Your task to perform on an android device: open a new tab in the chrome app Image 0: 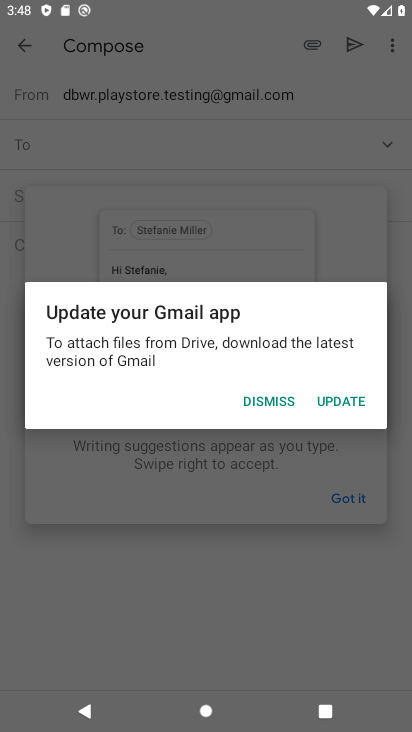
Step 0: press home button
Your task to perform on an android device: open a new tab in the chrome app Image 1: 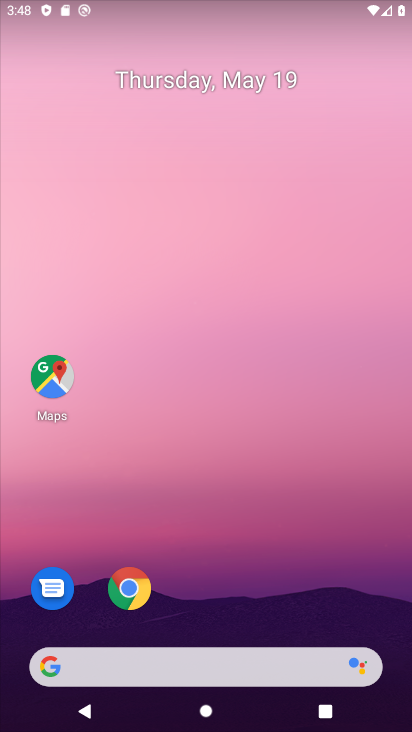
Step 1: click (141, 582)
Your task to perform on an android device: open a new tab in the chrome app Image 2: 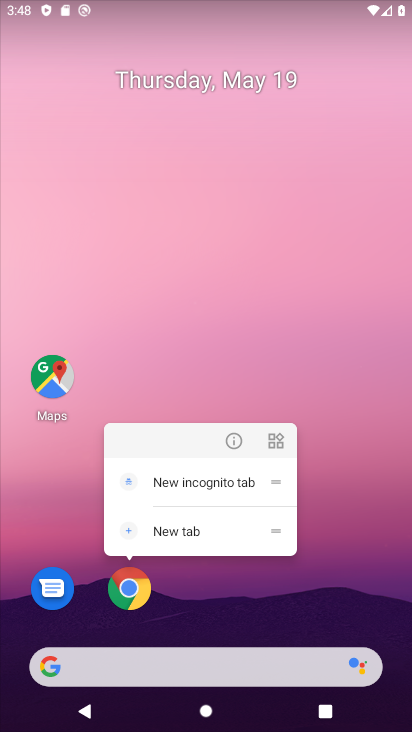
Step 2: click (132, 589)
Your task to perform on an android device: open a new tab in the chrome app Image 3: 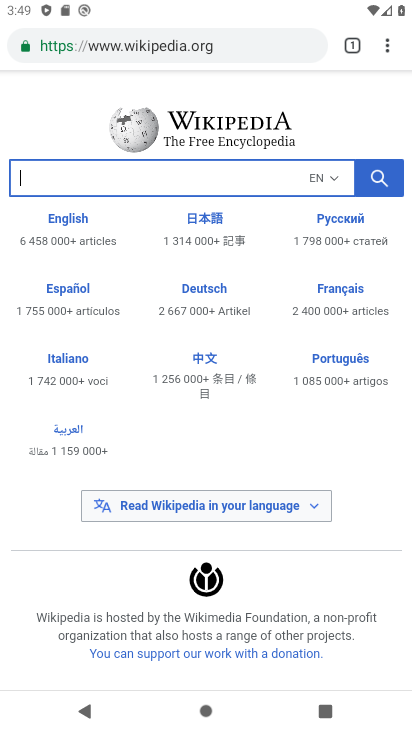
Step 3: click (378, 44)
Your task to perform on an android device: open a new tab in the chrome app Image 4: 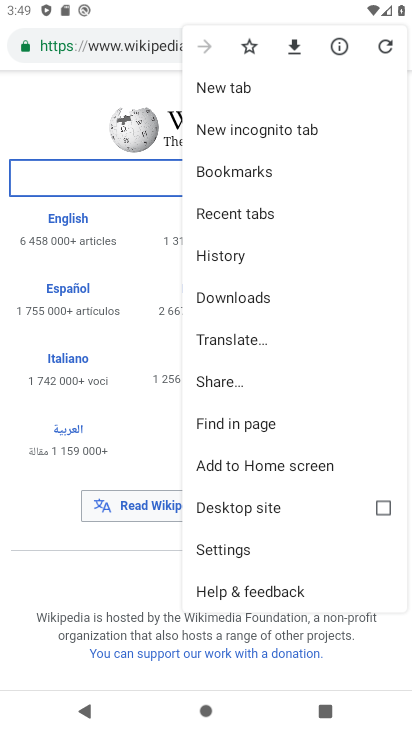
Step 4: click (246, 90)
Your task to perform on an android device: open a new tab in the chrome app Image 5: 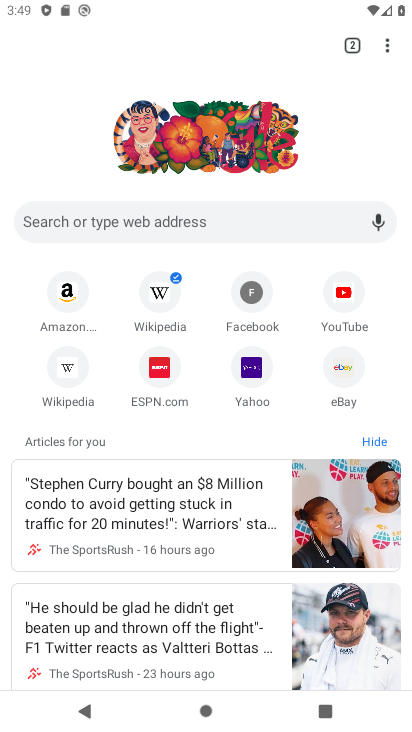
Step 5: task complete